Your task to perform on an android device: open chrome privacy settings Image 0: 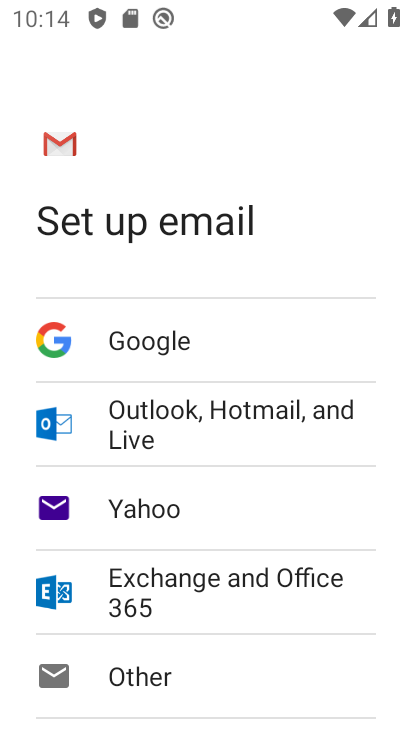
Step 0: press home button
Your task to perform on an android device: open chrome privacy settings Image 1: 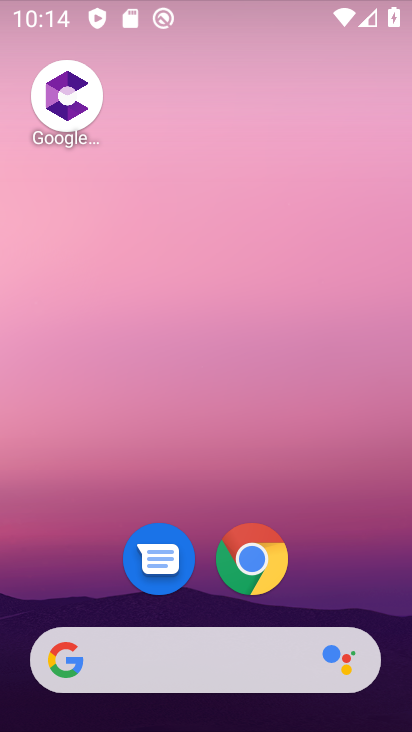
Step 1: drag from (355, 591) to (300, 141)
Your task to perform on an android device: open chrome privacy settings Image 2: 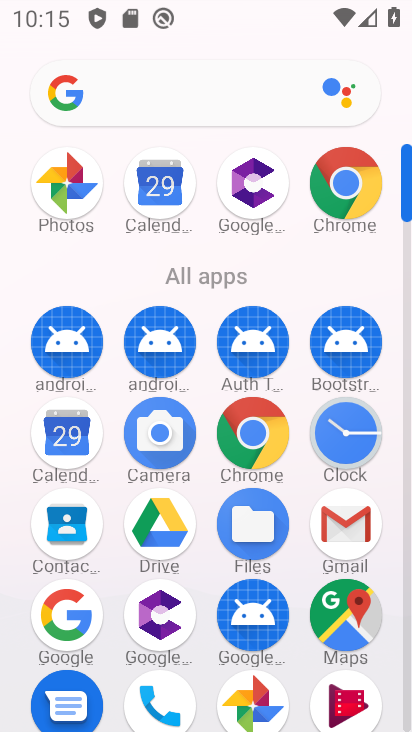
Step 2: click (251, 452)
Your task to perform on an android device: open chrome privacy settings Image 3: 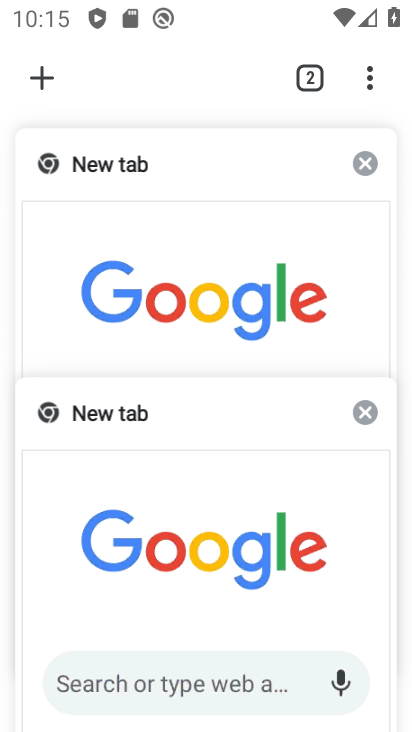
Step 3: drag from (374, 69) to (132, 300)
Your task to perform on an android device: open chrome privacy settings Image 4: 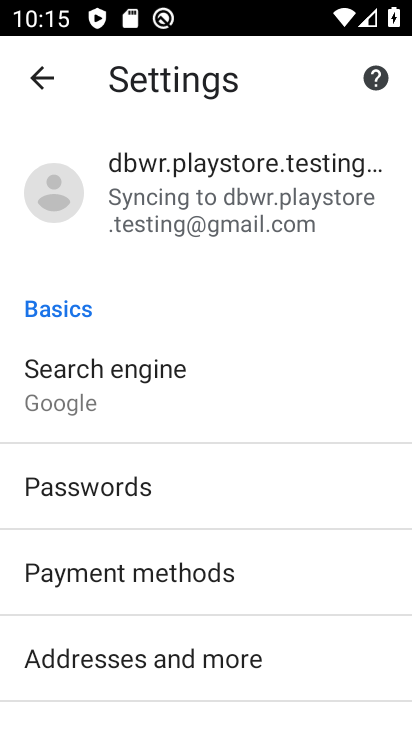
Step 4: drag from (334, 679) to (361, 257)
Your task to perform on an android device: open chrome privacy settings Image 5: 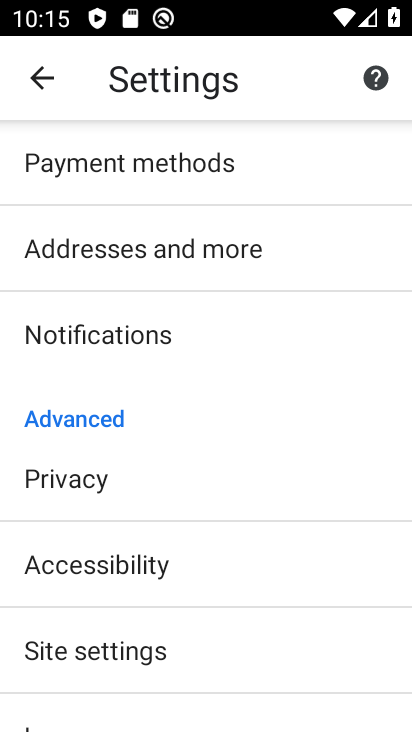
Step 5: drag from (224, 648) to (259, 219)
Your task to perform on an android device: open chrome privacy settings Image 6: 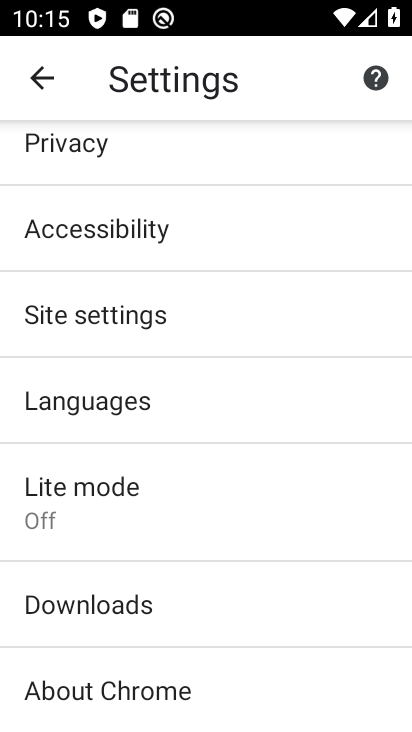
Step 6: click (69, 156)
Your task to perform on an android device: open chrome privacy settings Image 7: 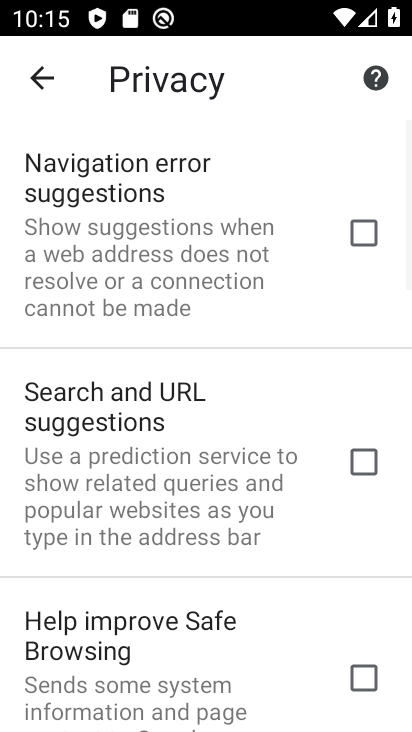
Step 7: task complete